Your task to perform on an android device: change the clock display to show seconds Image 0: 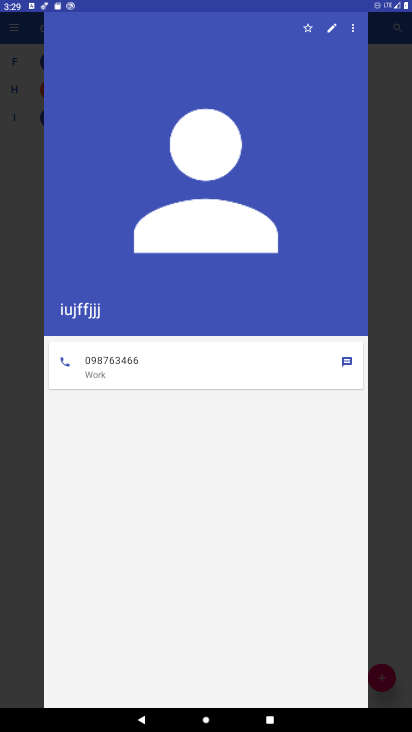
Step 0: press home button
Your task to perform on an android device: change the clock display to show seconds Image 1: 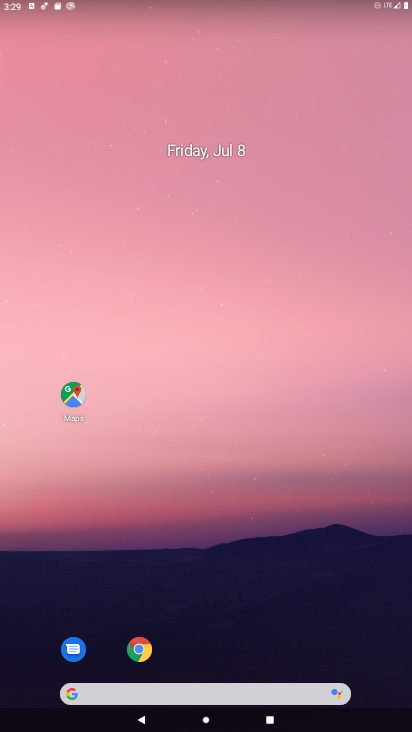
Step 1: drag from (399, 677) to (336, 142)
Your task to perform on an android device: change the clock display to show seconds Image 2: 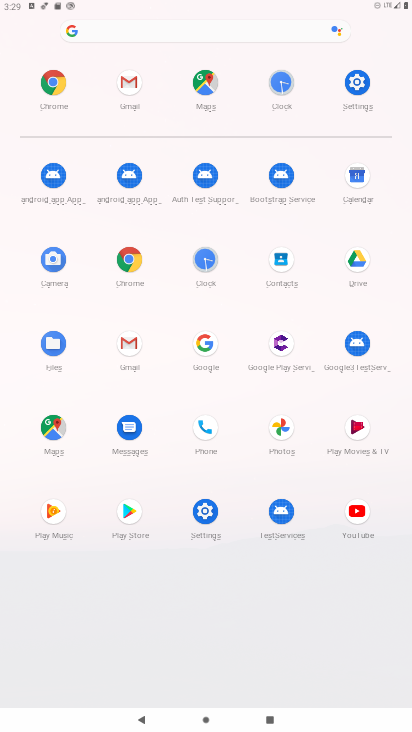
Step 2: click (203, 261)
Your task to perform on an android device: change the clock display to show seconds Image 3: 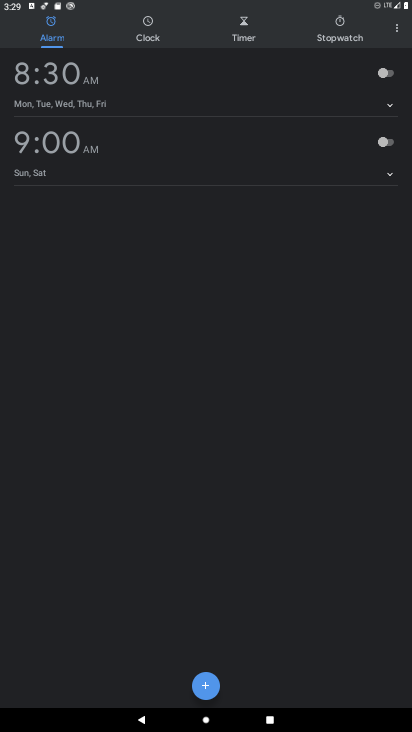
Step 3: click (397, 33)
Your task to perform on an android device: change the clock display to show seconds Image 4: 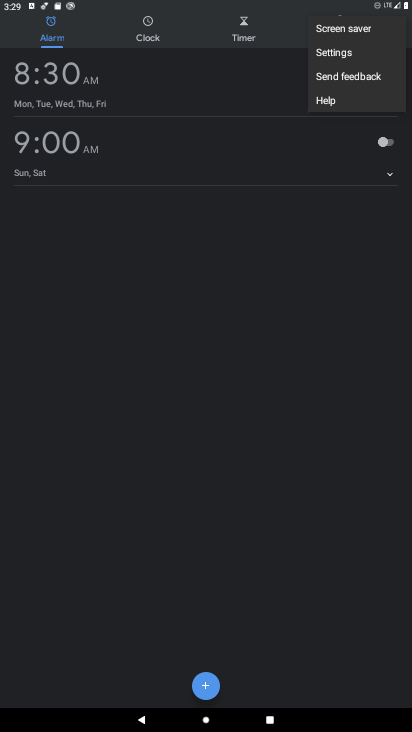
Step 4: click (331, 49)
Your task to perform on an android device: change the clock display to show seconds Image 5: 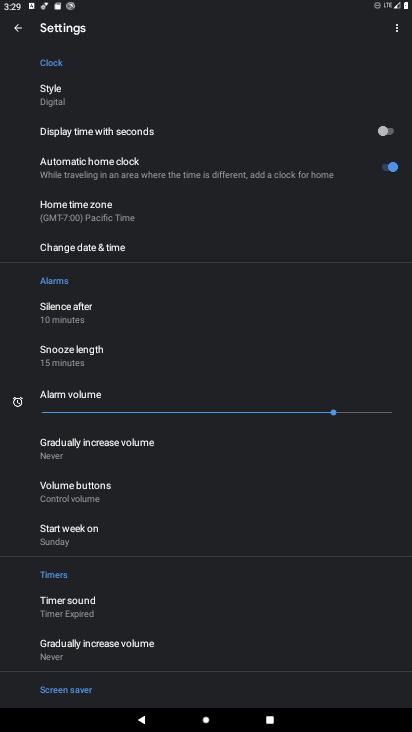
Step 5: click (391, 132)
Your task to perform on an android device: change the clock display to show seconds Image 6: 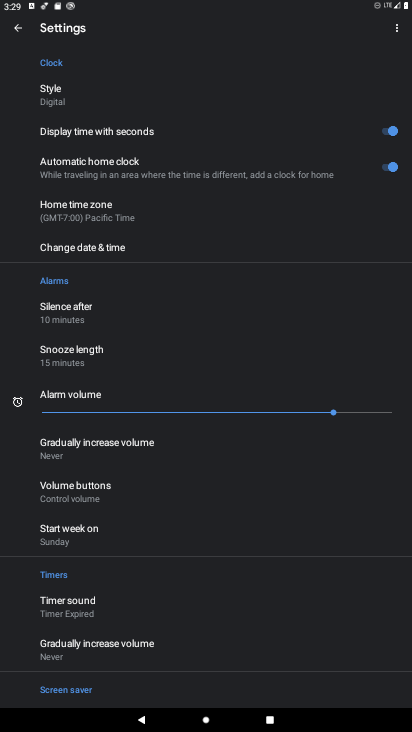
Step 6: task complete